Your task to perform on an android device: turn off location Image 0: 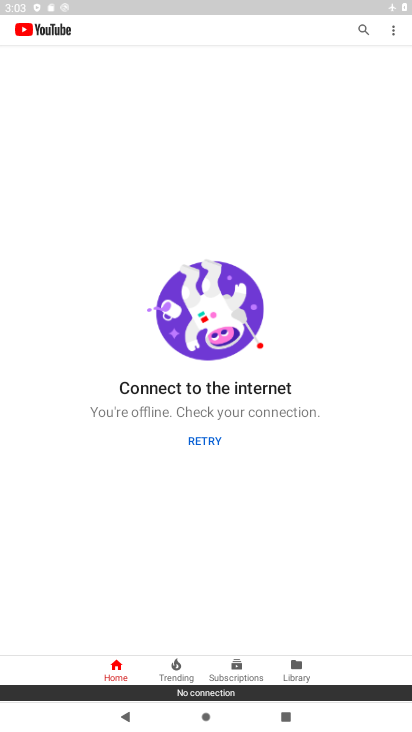
Step 0: press home button
Your task to perform on an android device: turn off location Image 1: 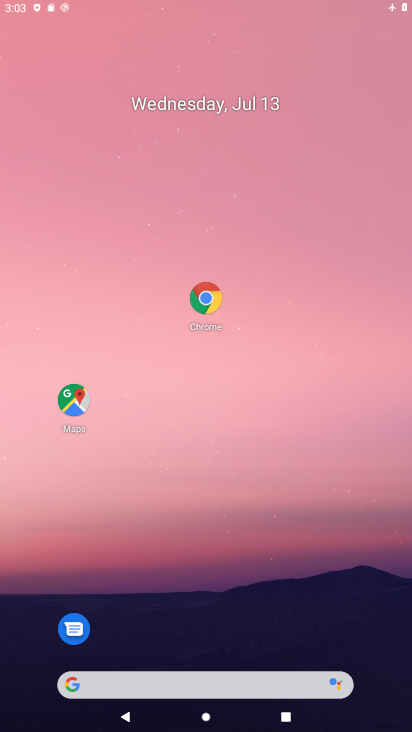
Step 1: drag from (257, 605) to (254, 178)
Your task to perform on an android device: turn off location Image 2: 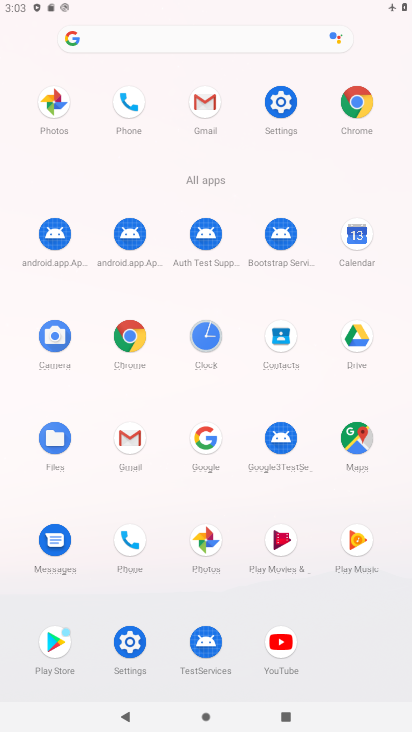
Step 2: click (273, 115)
Your task to perform on an android device: turn off location Image 3: 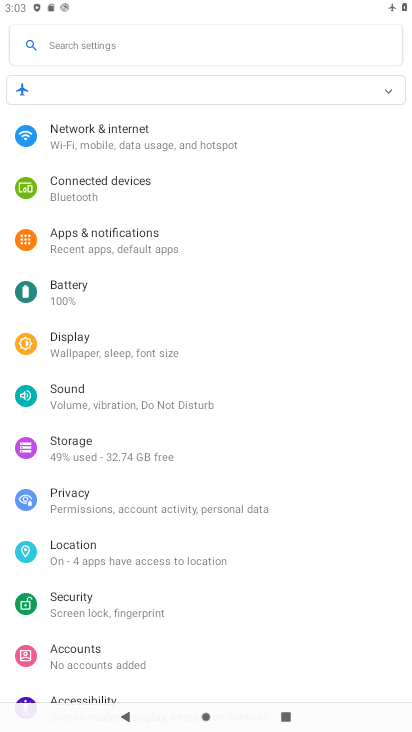
Step 3: click (88, 537)
Your task to perform on an android device: turn off location Image 4: 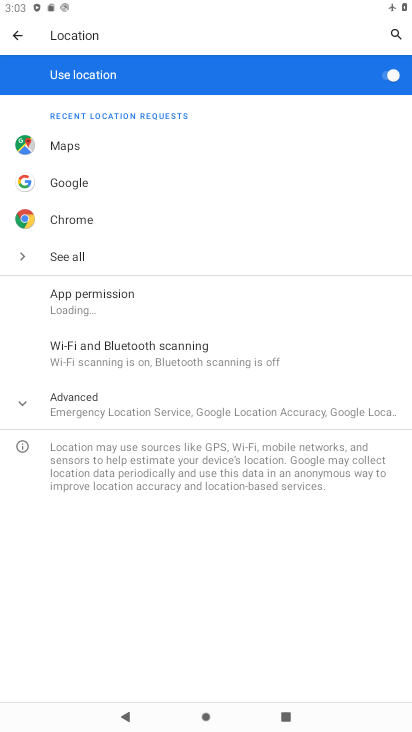
Step 4: click (378, 77)
Your task to perform on an android device: turn off location Image 5: 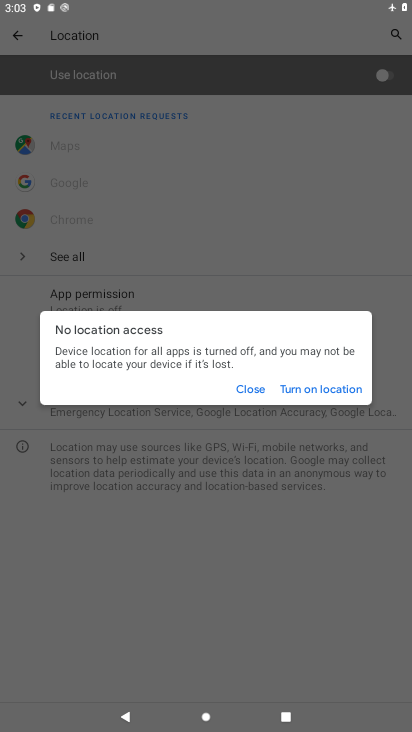
Step 5: task complete